Your task to perform on an android device: When is my next meeting? Image 0: 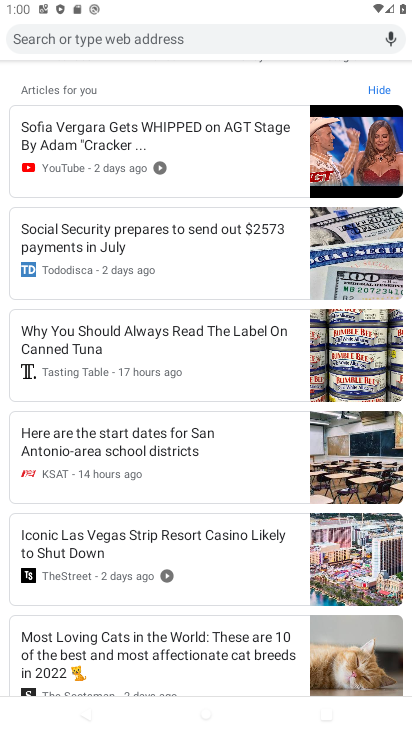
Step 0: press home button
Your task to perform on an android device: When is my next meeting? Image 1: 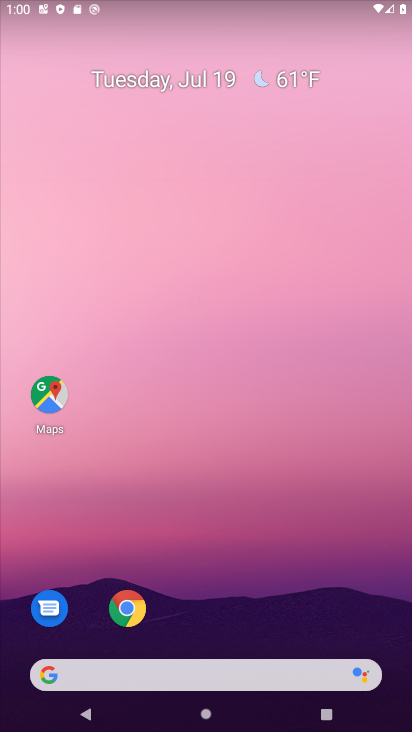
Step 1: drag from (300, 596) to (388, 35)
Your task to perform on an android device: When is my next meeting? Image 2: 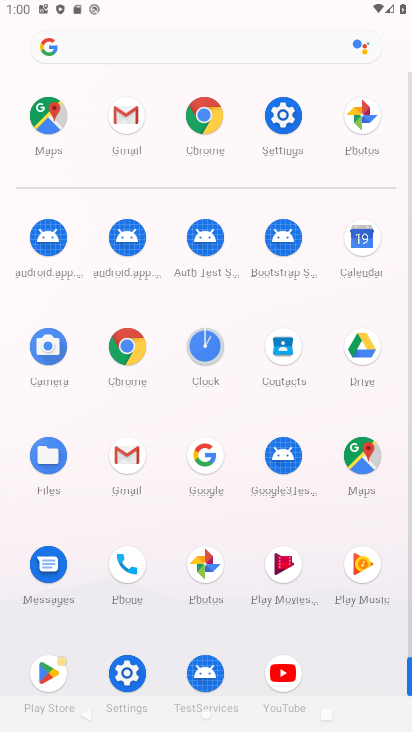
Step 2: click (352, 246)
Your task to perform on an android device: When is my next meeting? Image 3: 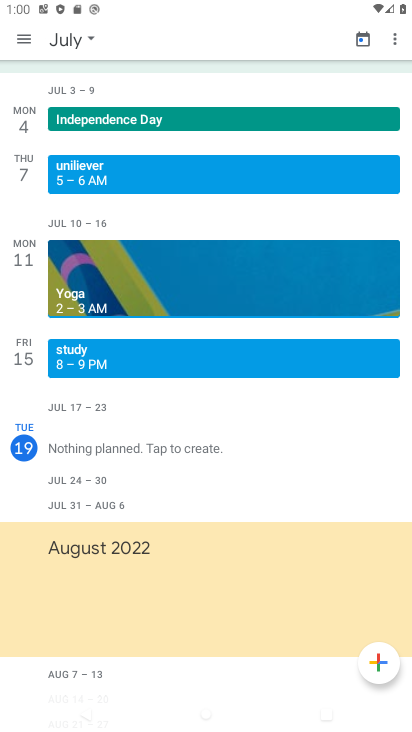
Step 3: click (78, 44)
Your task to perform on an android device: When is my next meeting? Image 4: 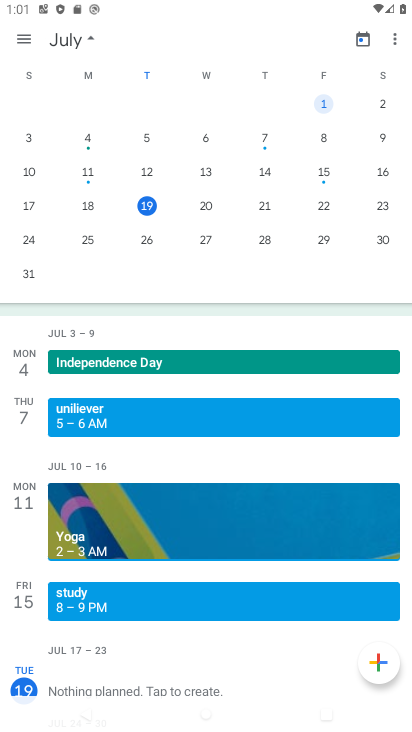
Step 4: task complete